Your task to perform on an android device: turn on the 12-hour format for clock Image 0: 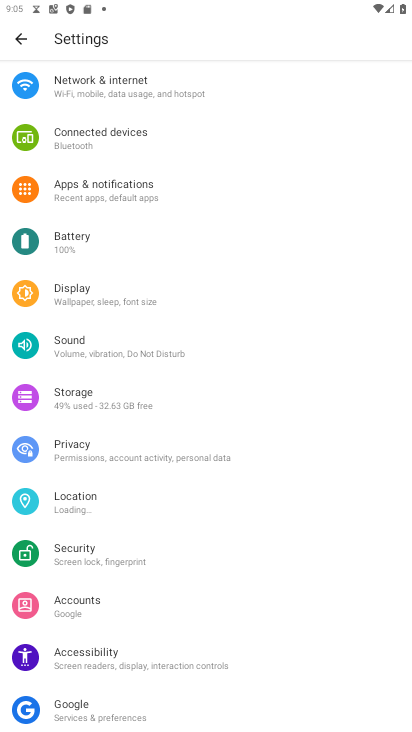
Step 0: press home button
Your task to perform on an android device: turn on the 12-hour format for clock Image 1: 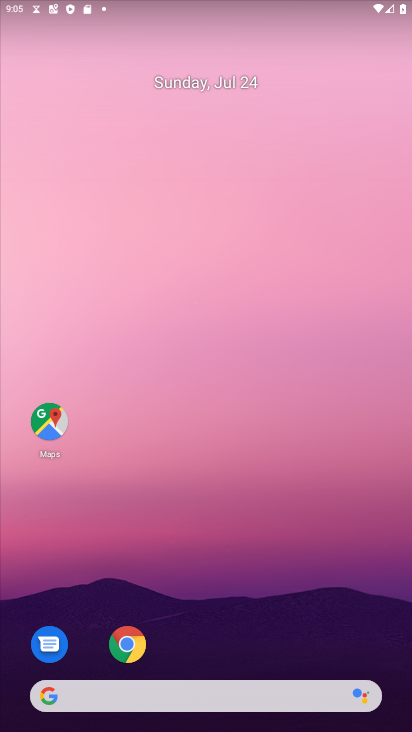
Step 1: drag from (272, 630) to (283, 0)
Your task to perform on an android device: turn on the 12-hour format for clock Image 2: 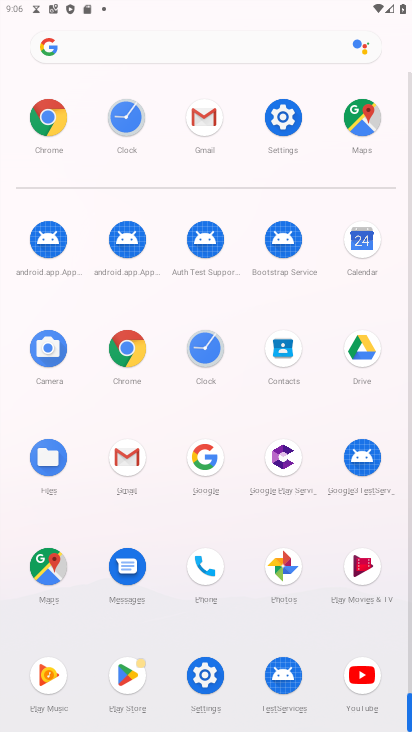
Step 2: click (202, 678)
Your task to perform on an android device: turn on the 12-hour format for clock Image 3: 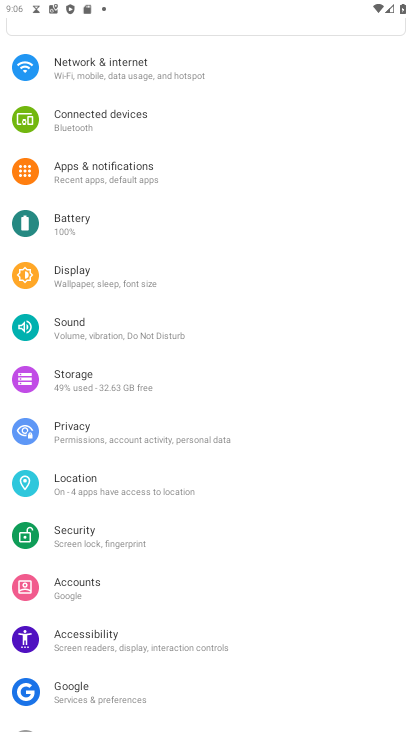
Step 3: press home button
Your task to perform on an android device: turn on the 12-hour format for clock Image 4: 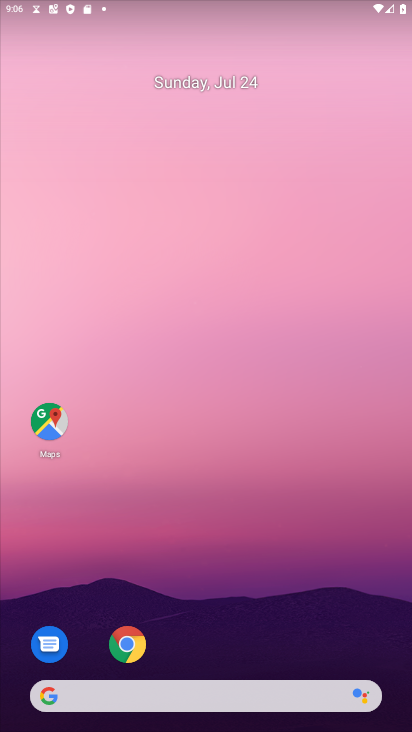
Step 4: drag from (280, 578) to (282, 5)
Your task to perform on an android device: turn on the 12-hour format for clock Image 5: 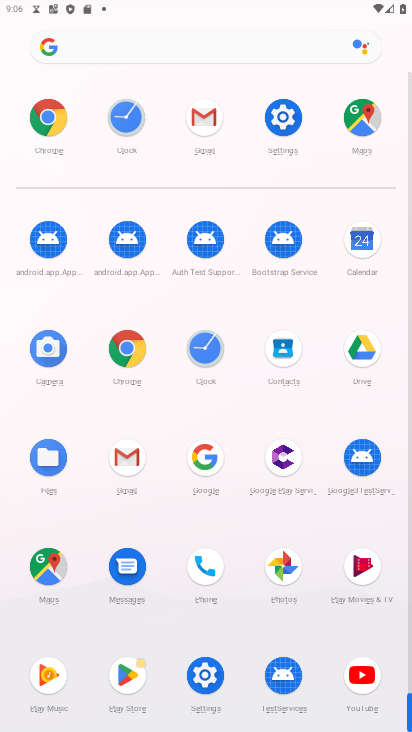
Step 5: click (196, 347)
Your task to perform on an android device: turn on the 12-hour format for clock Image 6: 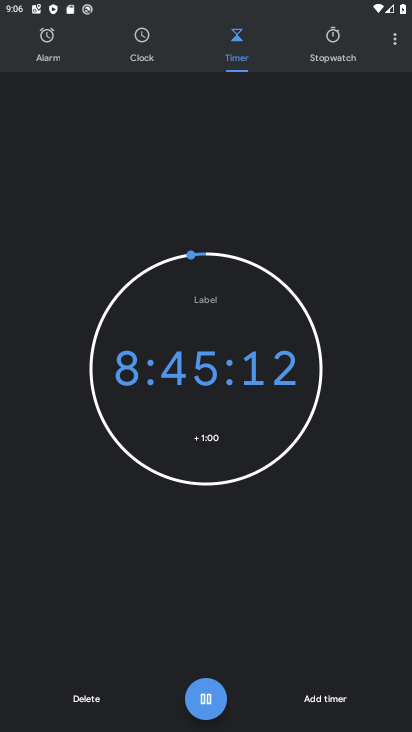
Step 6: click (392, 50)
Your task to perform on an android device: turn on the 12-hour format for clock Image 7: 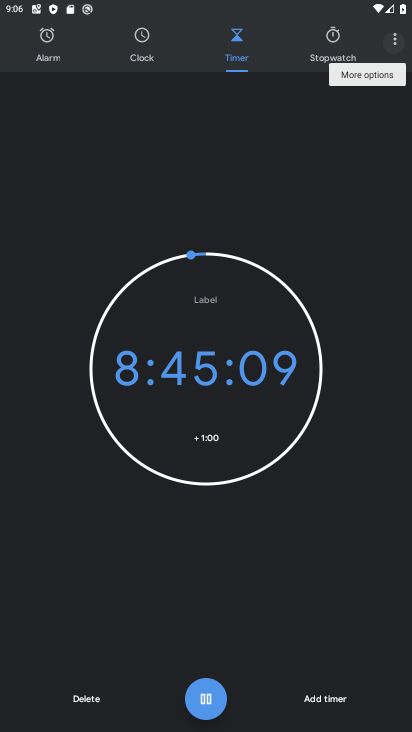
Step 7: click (392, 50)
Your task to perform on an android device: turn on the 12-hour format for clock Image 8: 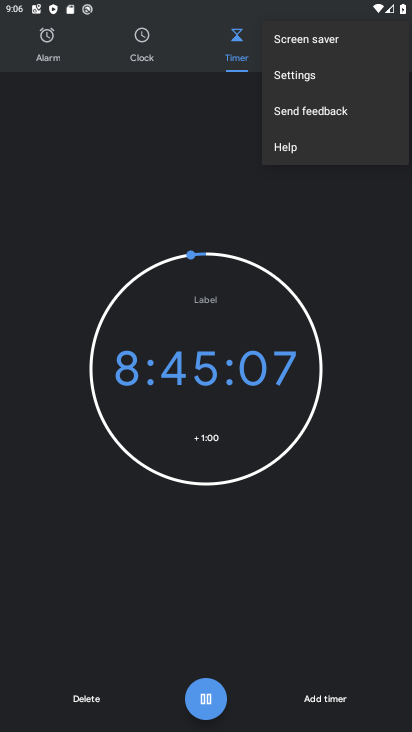
Step 8: click (302, 77)
Your task to perform on an android device: turn on the 12-hour format for clock Image 9: 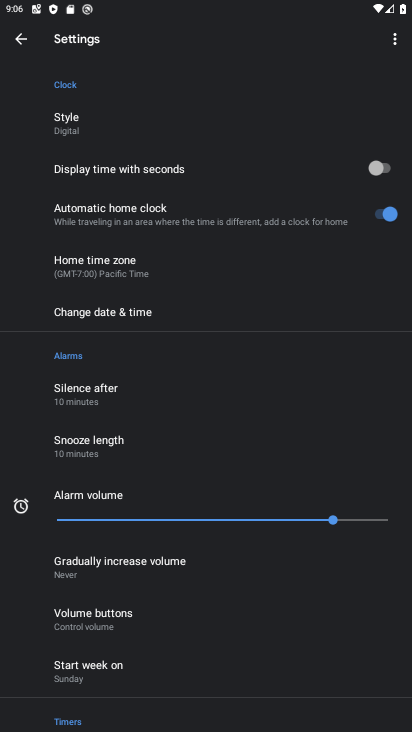
Step 9: click (129, 302)
Your task to perform on an android device: turn on the 12-hour format for clock Image 10: 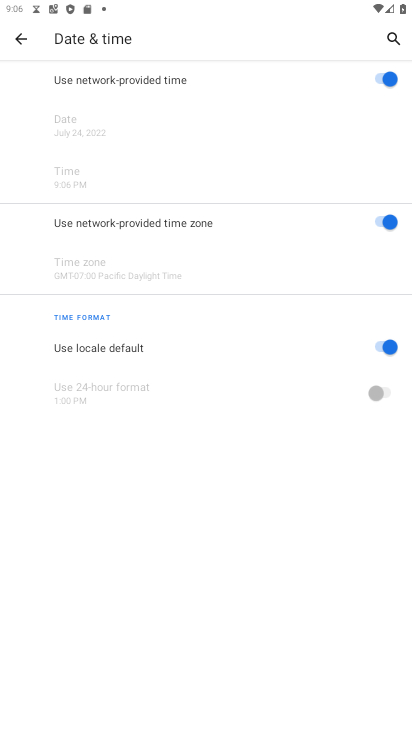
Step 10: task complete